Your task to perform on an android device: Open Google Chrome and click the shortcut for Amazon.com Image 0: 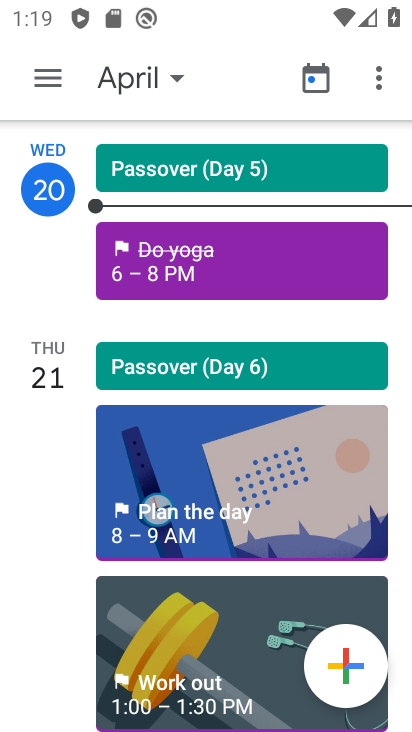
Step 0: press home button
Your task to perform on an android device: Open Google Chrome and click the shortcut for Amazon.com Image 1: 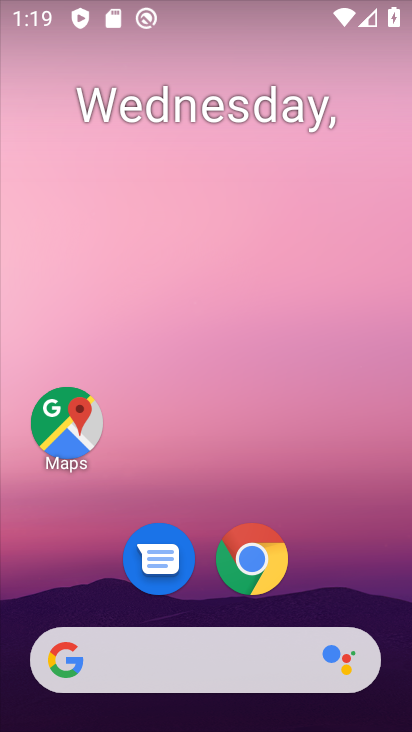
Step 1: click (268, 550)
Your task to perform on an android device: Open Google Chrome and click the shortcut for Amazon.com Image 2: 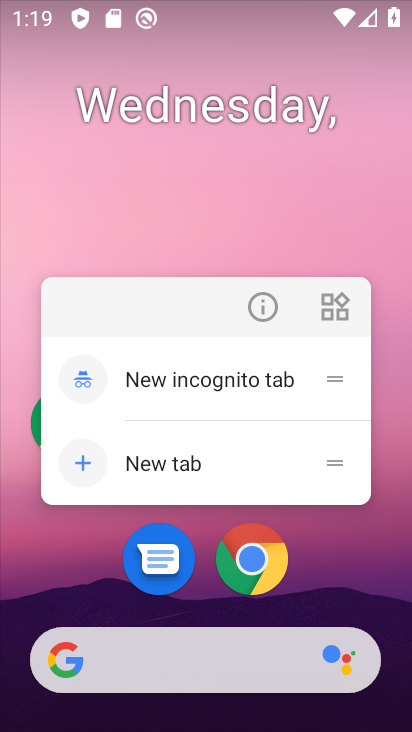
Step 2: click (255, 567)
Your task to perform on an android device: Open Google Chrome and click the shortcut for Amazon.com Image 3: 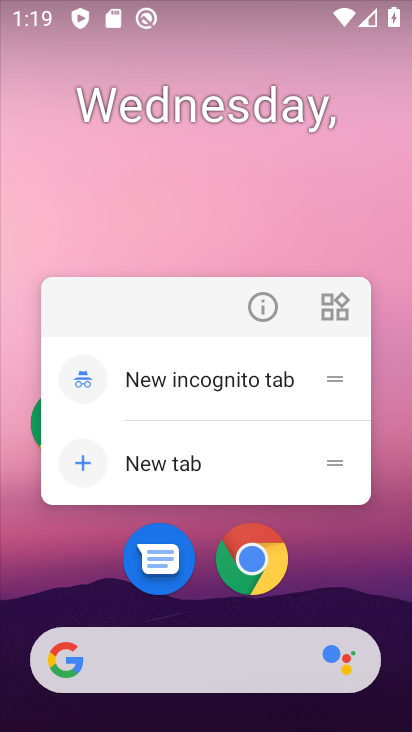
Step 3: click (257, 561)
Your task to perform on an android device: Open Google Chrome and click the shortcut for Amazon.com Image 4: 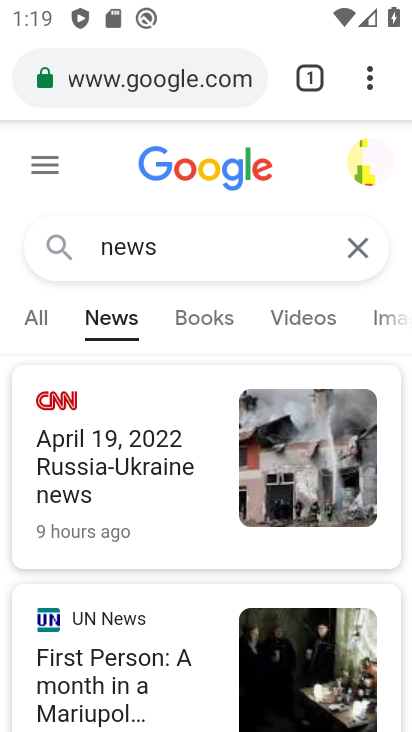
Step 4: drag from (364, 76) to (97, 157)
Your task to perform on an android device: Open Google Chrome and click the shortcut for Amazon.com Image 5: 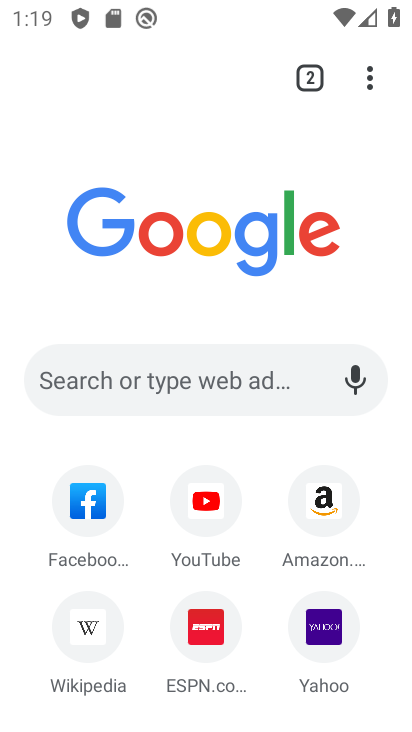
Step 5: click (314, 503)
Your task to perform on an android device: Open Google Chrome and click the shortcut for Amazon.com Image 6: 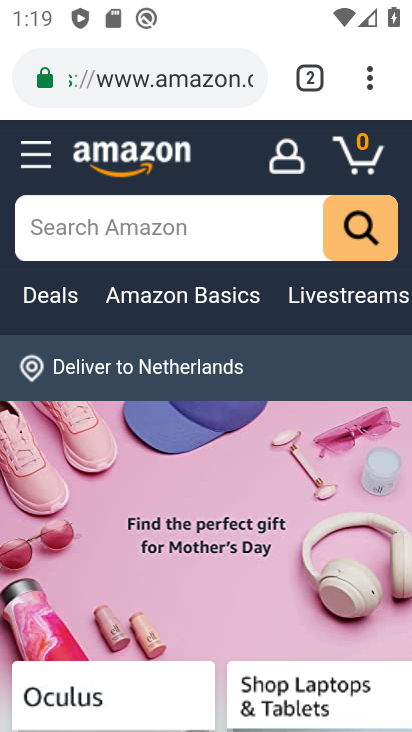
Step 6: task complete